Your task to perform on an android device: turn pop-ups on in chrome Image 0: 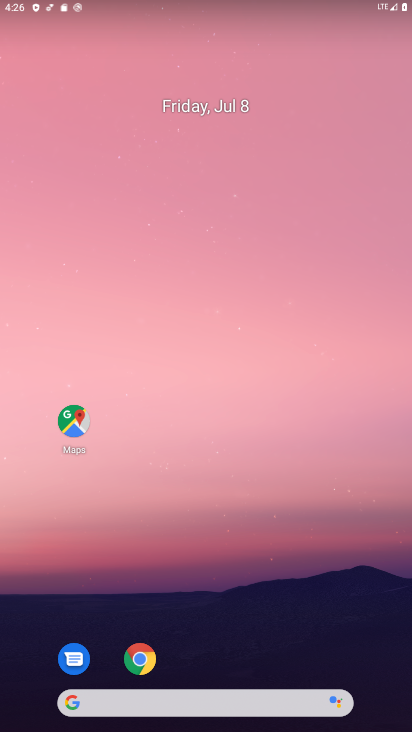
Step 0: drag from (257, 698) to (369, 60)
Your task to perform on an android device: turn pop-ups on in chrome Image 1: 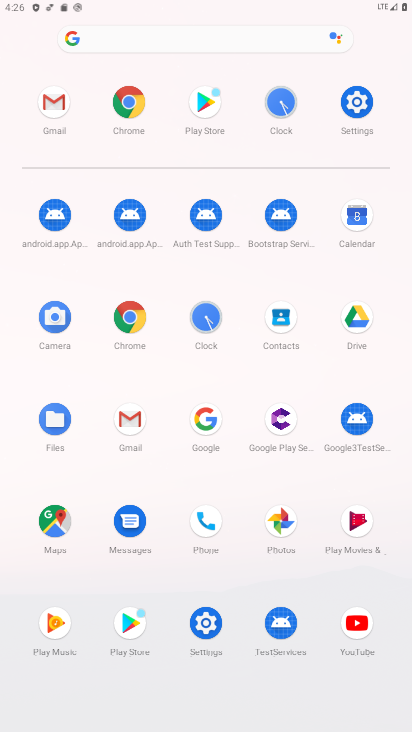
Step 1: click (135, 336)
Your task to perform on an android device: turn pop-ups on in chrome Image 2: 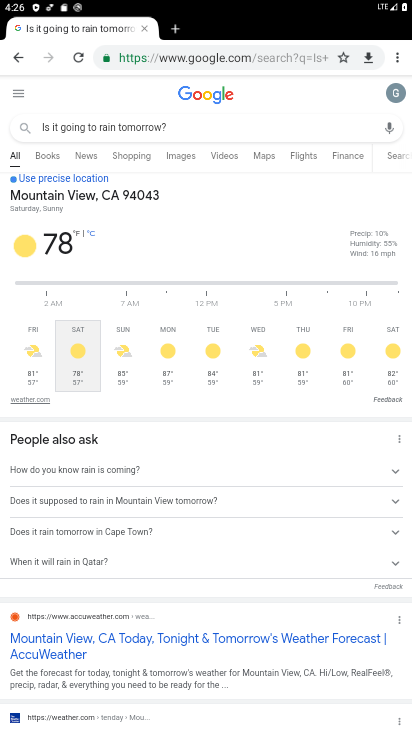
Step 2: drag from (403, 59) to (275, 352)
Your task to perform on an android device: turn pop-ups on in chrome Image 3: 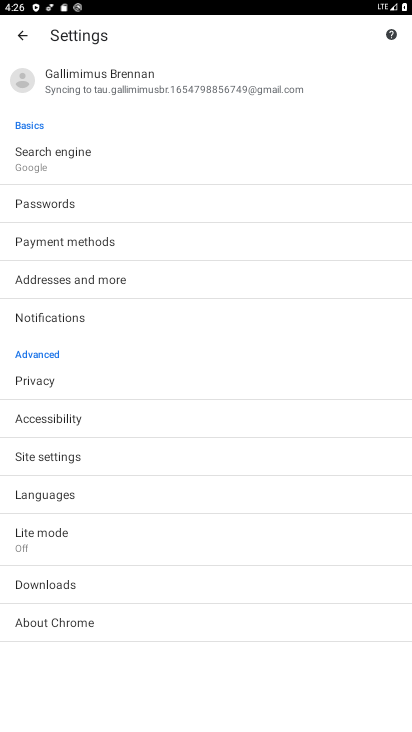
Step 3: click (92, 454)
Your task to perform on an android device: turn pop-ups on in chrome Image 4: 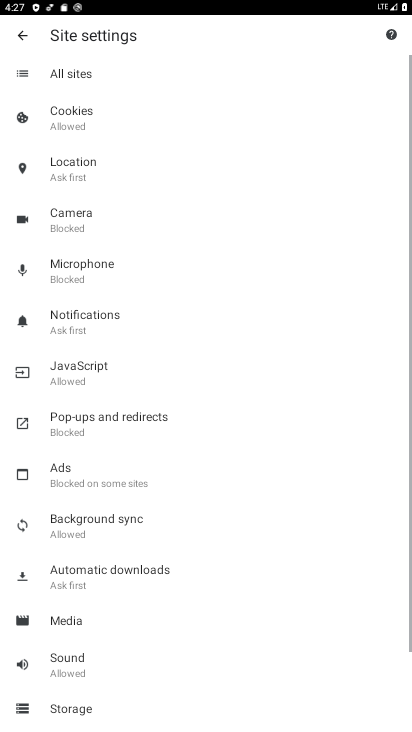
Step 4: click (92, 431)
Your task to perform on an android device: turn pop-ups on in chrome Image 5: 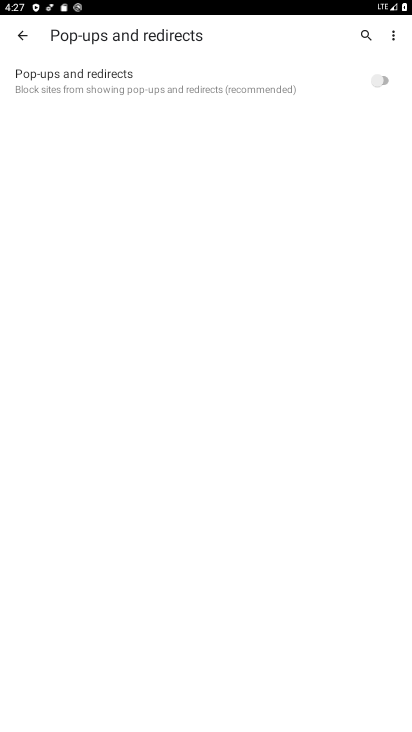
Step 5: click (270, 82)
Your task to perform on an android device: turn pop-ups on in chrome Image 6: 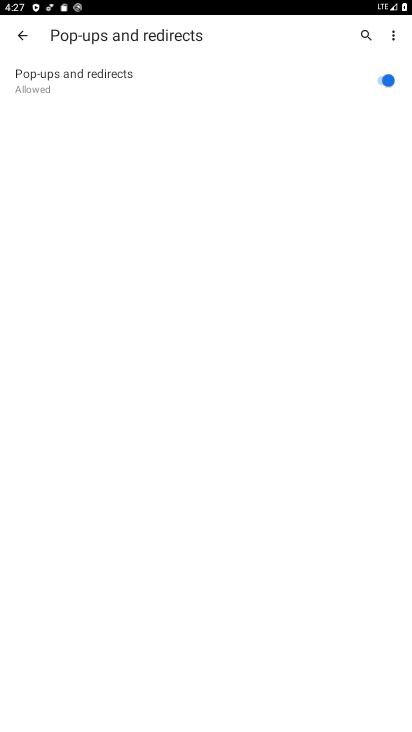
Step 6: task complete